Your task to perform on an android device: check the backup settings in the google photos Image 0: 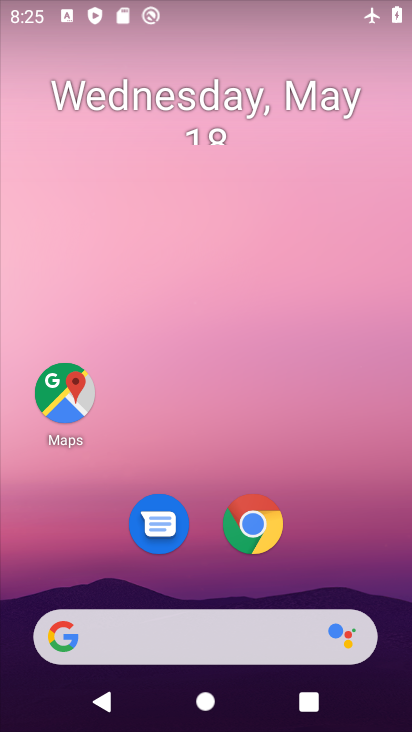
Step 0: drag from (207, 443) to (246, 59)
Your task to perform on an android device: check the backup settings in the google photos Image 1: 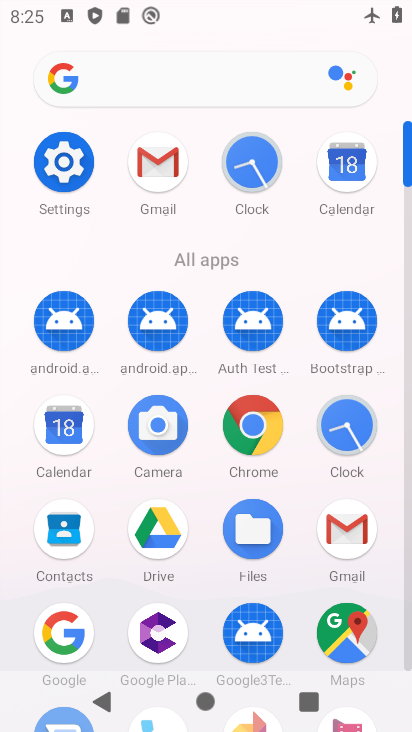
Step 1: drag from (203, 365) to (206, 98)
Your task to perform on an android device: check the backup settings in the google photos Image 2: 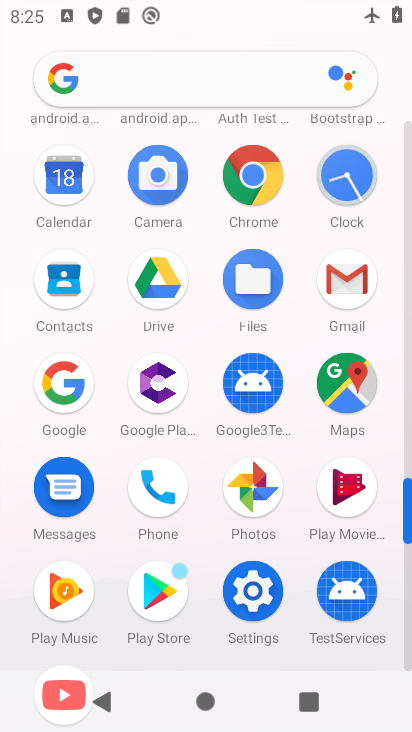
Step 2: click (243, 486)
Your task to perform on an android device: check the backup settings in the google photos Image 3: 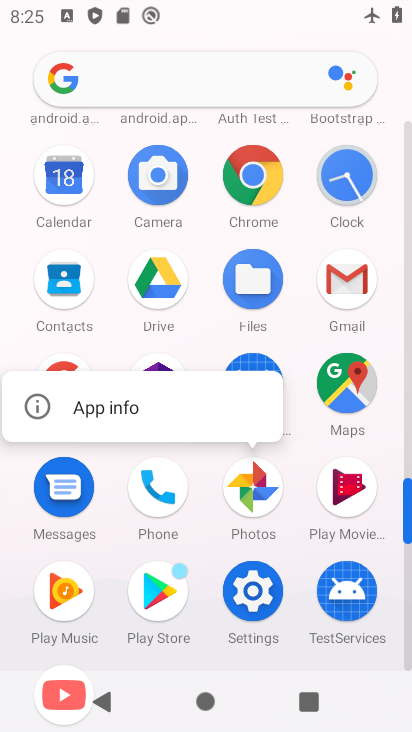
Step 3: click (243, 472)
Your task to perform on an android device: check the backup settings in the google photos Image 4: 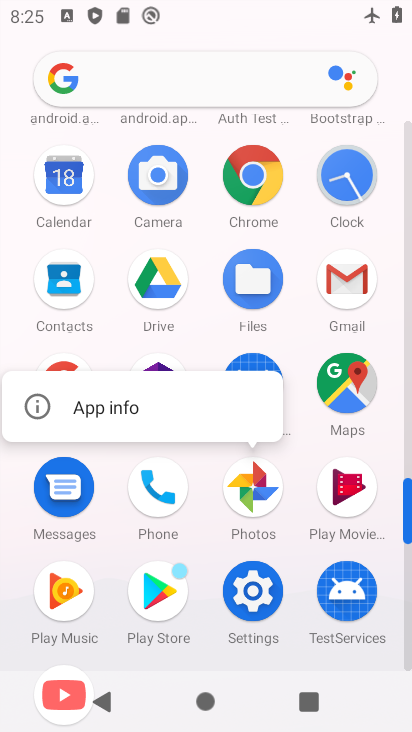
Step 4: click (243, 473)
Your task to perform on an android device: check the backup settings in the google photos Image 5: 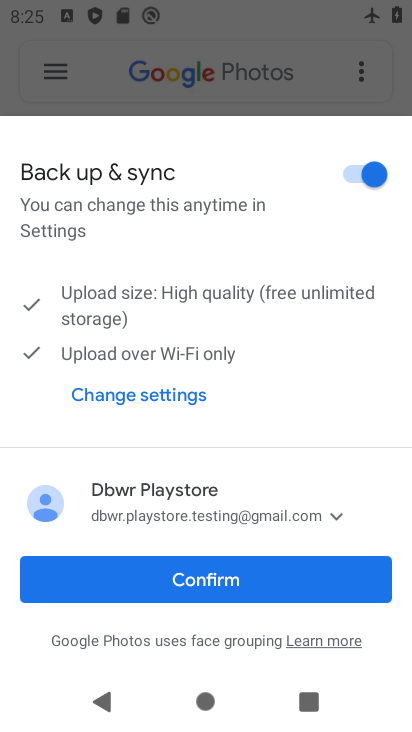
Step 5: click (314, 584)
Your task to perform on an android device: check the backup settings in the google photos Image 6: 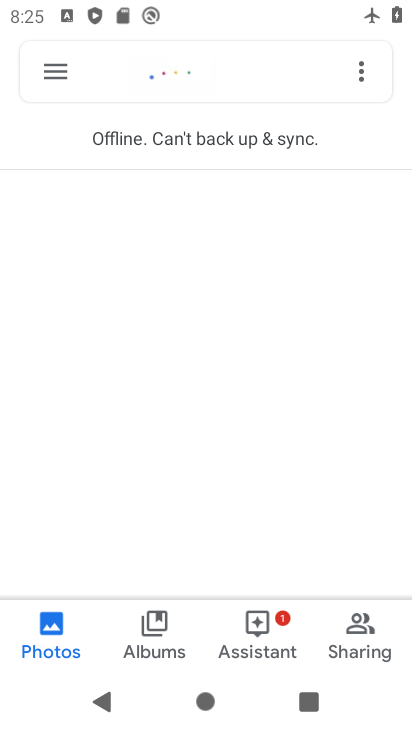
Step 6: click (55, 57)
Your task to perform on an android device: check the backup settings in the google photos Image 7: 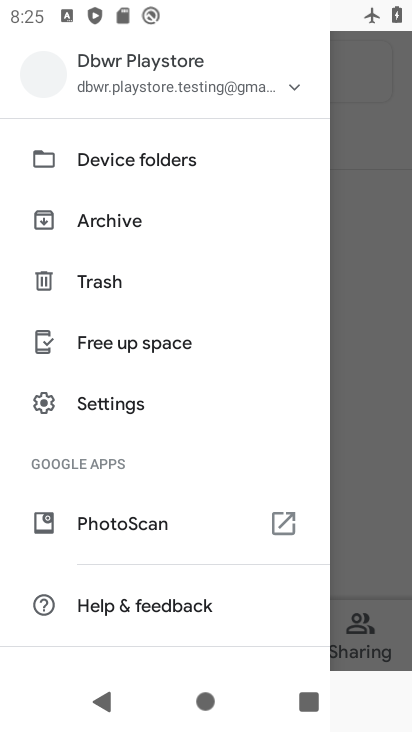
Step 7: click (131, 403)
Your task to perform on an android device: check the backup settings in the google photos Image 8: 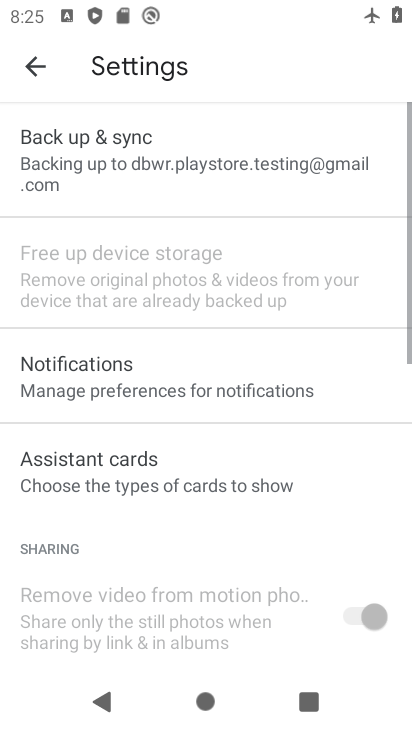
Step 8: click (172, 162)
Your task to perform on an android device: check the backup settings in the google photos Image 9: 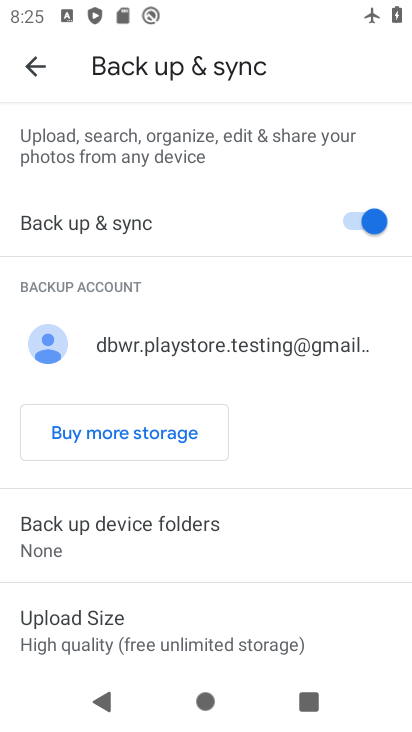
Step 9: task complete